Your task to perform on an android device: Go to sound settings Image 0: 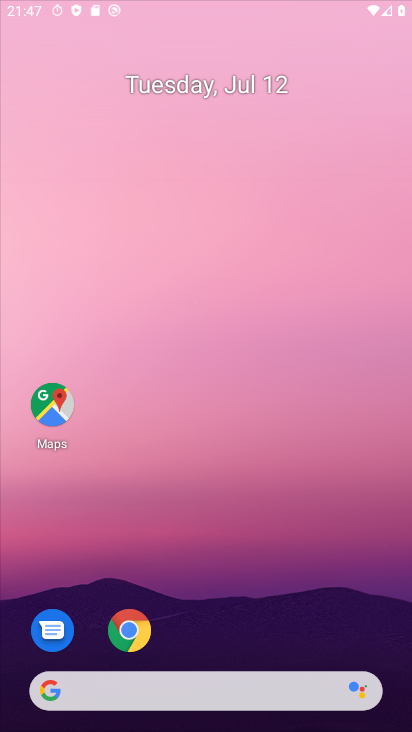
Step 0: click (255, 95)
Your task to perform on an android device: Go to sound settings Image 1: 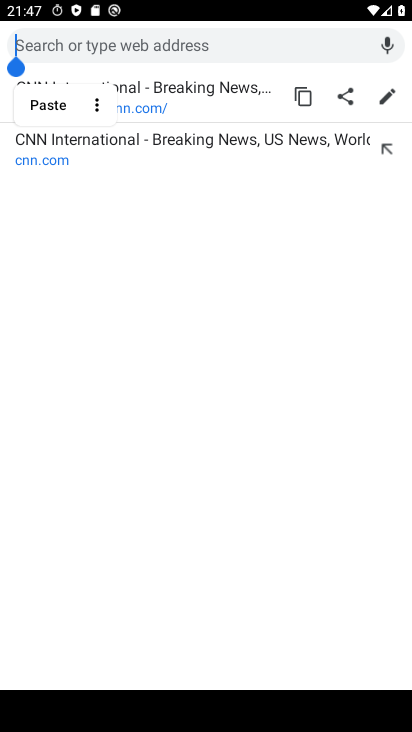
Step 1: press back button
Your task to perform on an android device: Go to sound settings Image 2: 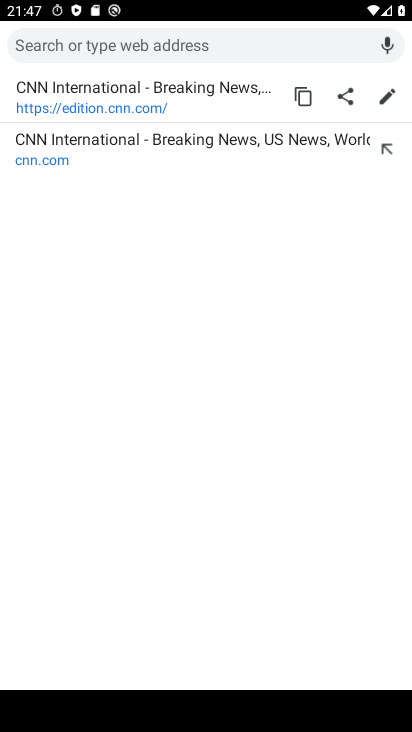
Step 2: press back button
Your task to perform on an android device: Go to sound settings Image 3: 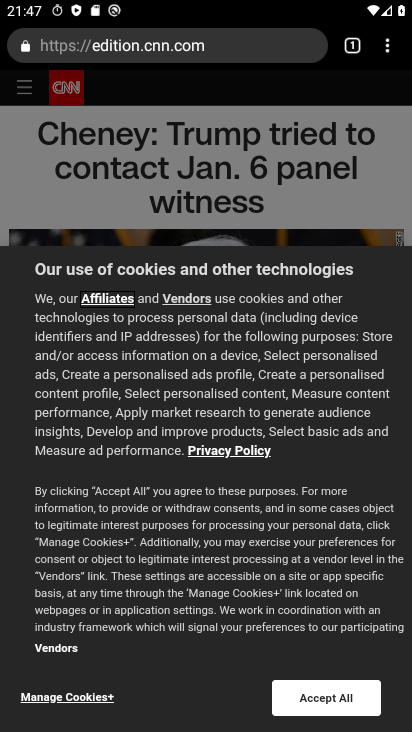
Step 3: press back button
Your task to perform on an android device: Go to sound settings Image 4: 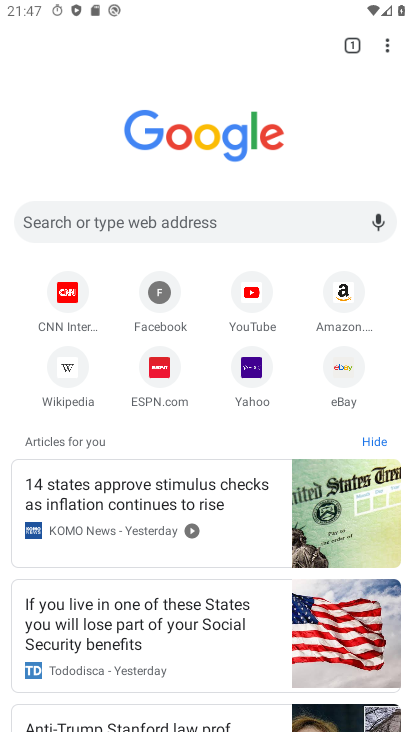
Step 4: press back button
Your task to perform on an android device: Go to sound settings Image 5: 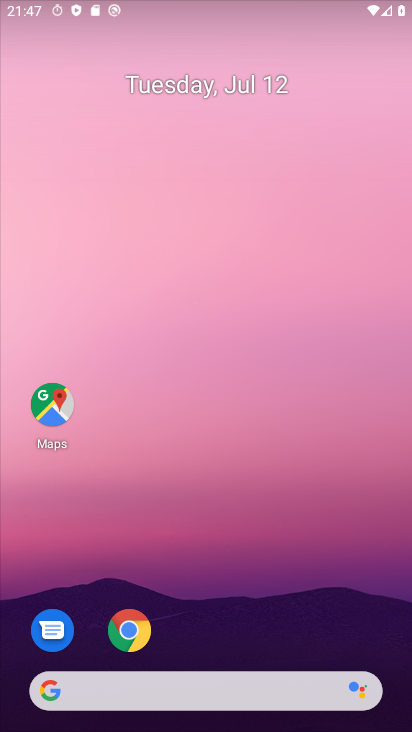
Step 5: drag from (222, 594) to (307, 8)
Your task to perform on an android device: Go to sound settings Image 6: 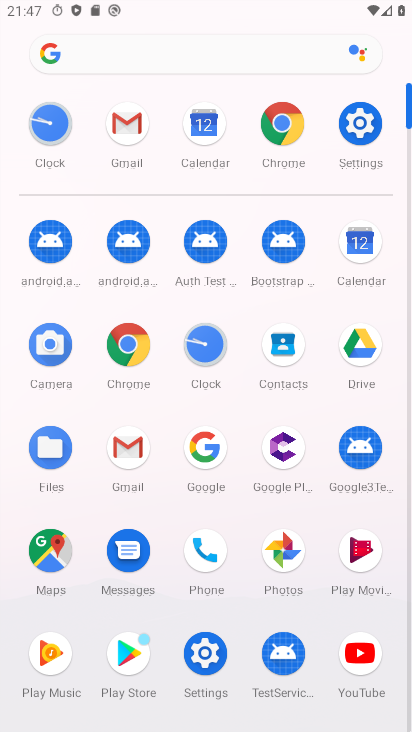
Step 6: click (354, 121)
Your task to perform on an android device: Go to sound settings Image 7: 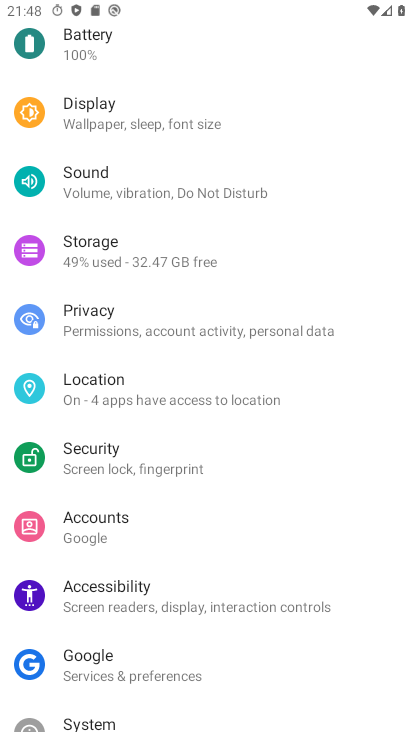
Step 7: click (126, 178)
Your task to perform on an android device: Go to sound settings Image 8: 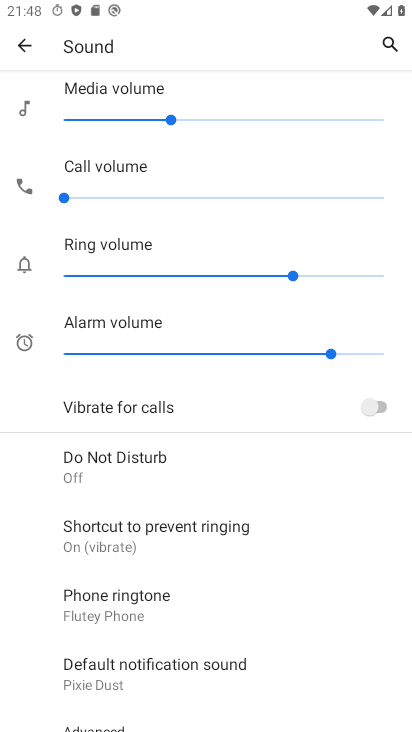
Step 8: task complete